Your task to perform on an android device: Go to Yahoo.com Image 0: 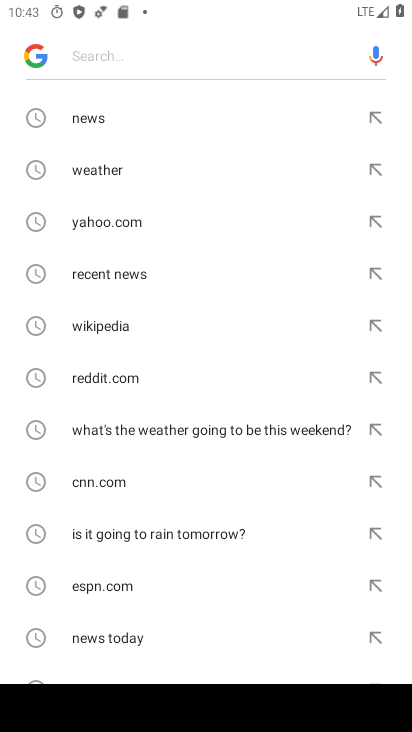
Step 0: press home button
Your task to perform on an android device: Go to Yahoo.com Image 1: 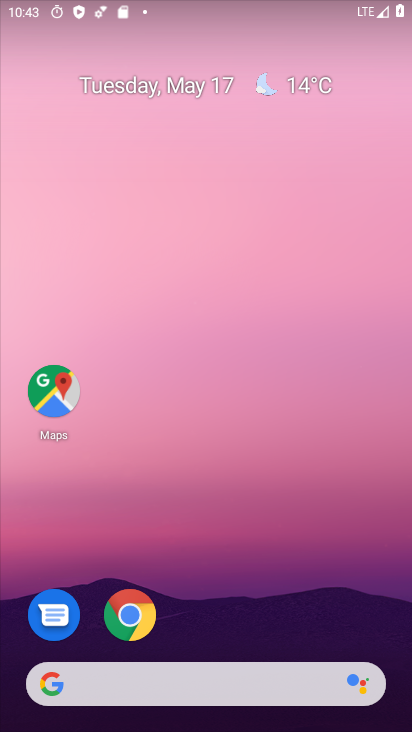
Step 1: drag from (204, 687) to (354, 174)
Your task to perform on an android device: Go to Yahoo.com Image 2: 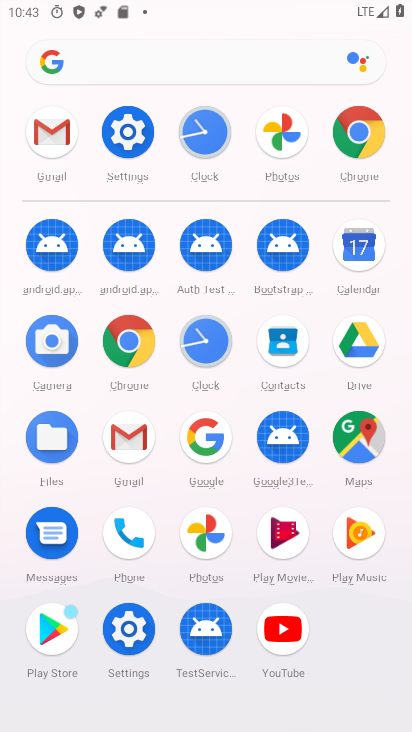
Step 2: click (355, 144)
Your task to perform on an android device: Go to Yahoo.com Image 3: 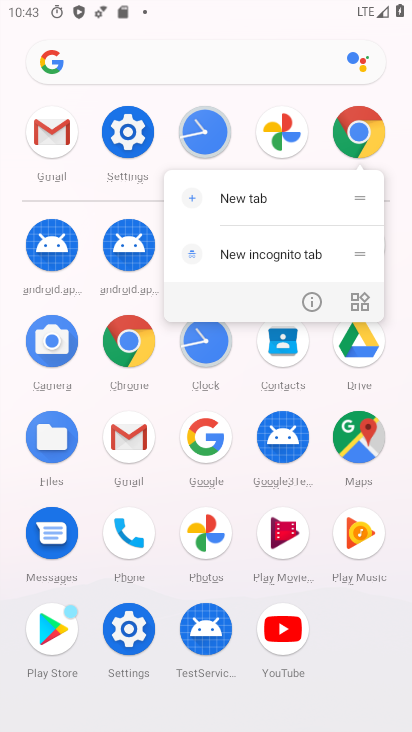
Step 3: click (366, 140)
Your task to perform on an android device: Go to Yahoo.com Image 4: 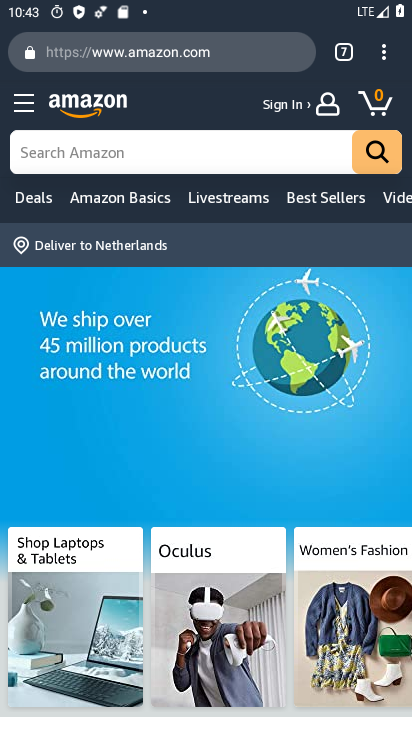
Step 4: drag from (380, 62) to (256, 90)
Your task to perform on an android device: Go to Yahoo.com Image 5: 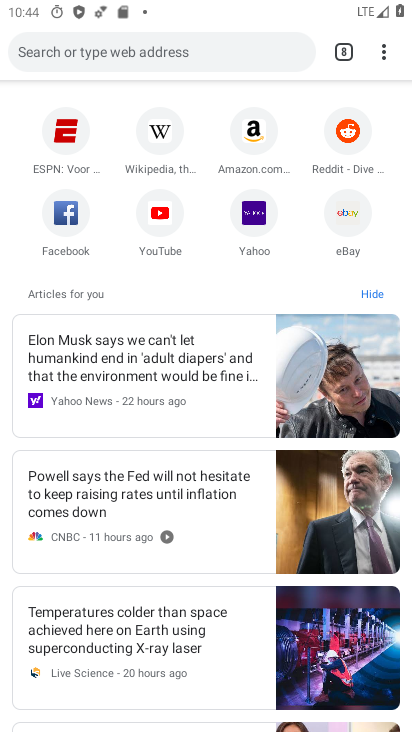
Step 5: click (261, 215)
Your task to perform on an android device: Go to Yahoo.com Image 6: 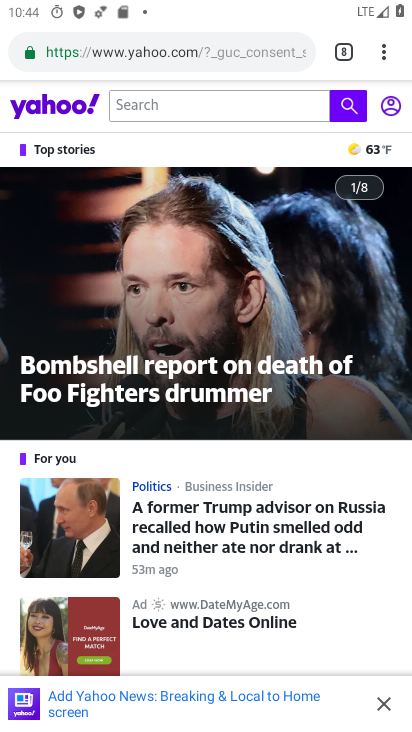
Step 6: task complete